Your task to perform on an android device: Go to battery settings Image 0: 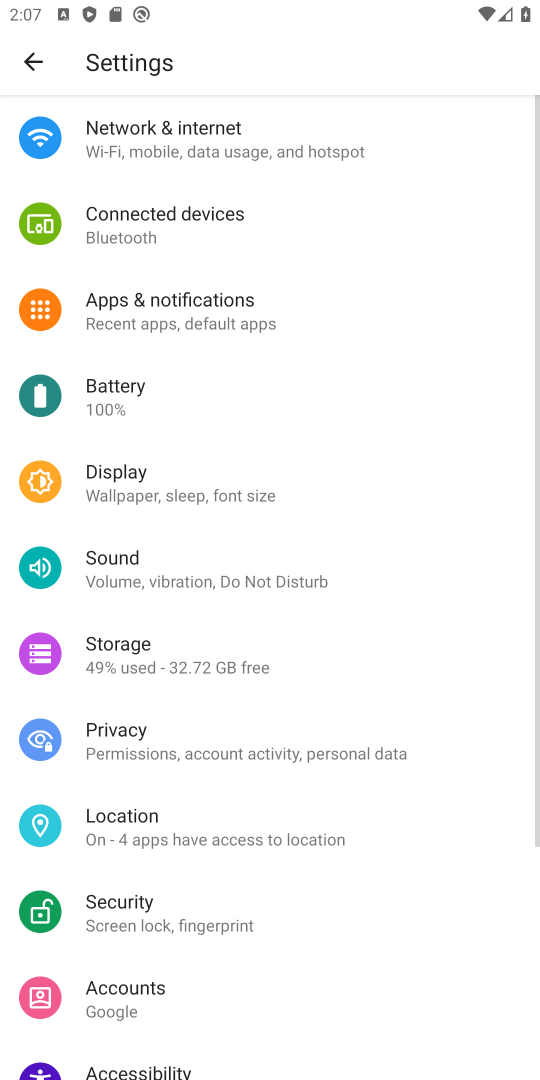
Step 0: press home button
Your task to perform on an android device: Go to battery settings Image 1: 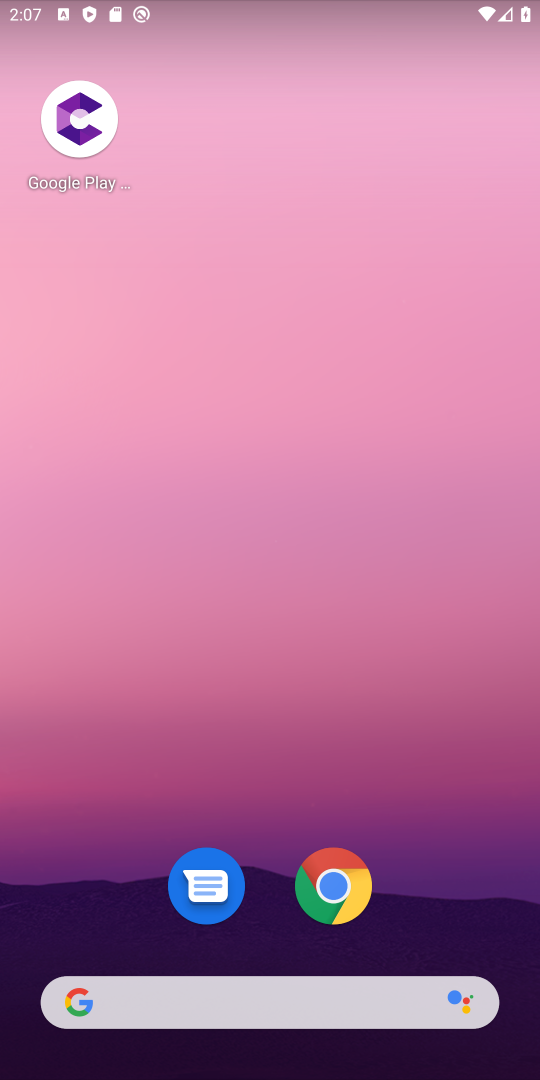
Step 1: drag from (393, 792) to (447, 31)
Your task to perform on an android device: Go to battery settings Image 2: 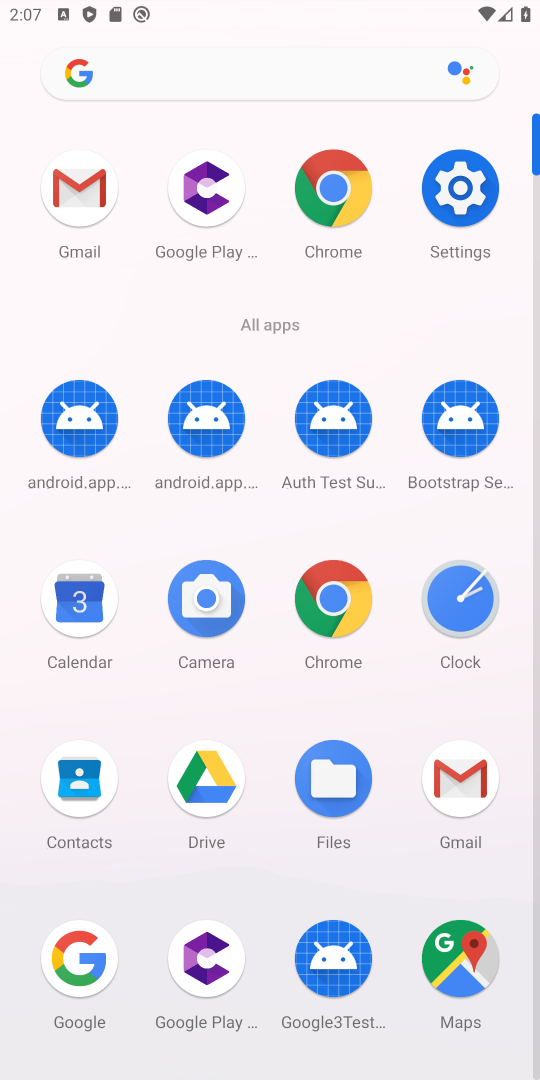
Step 2: click (459, 166)
Your task to perform on an android device: Go to battery settings Image 3: 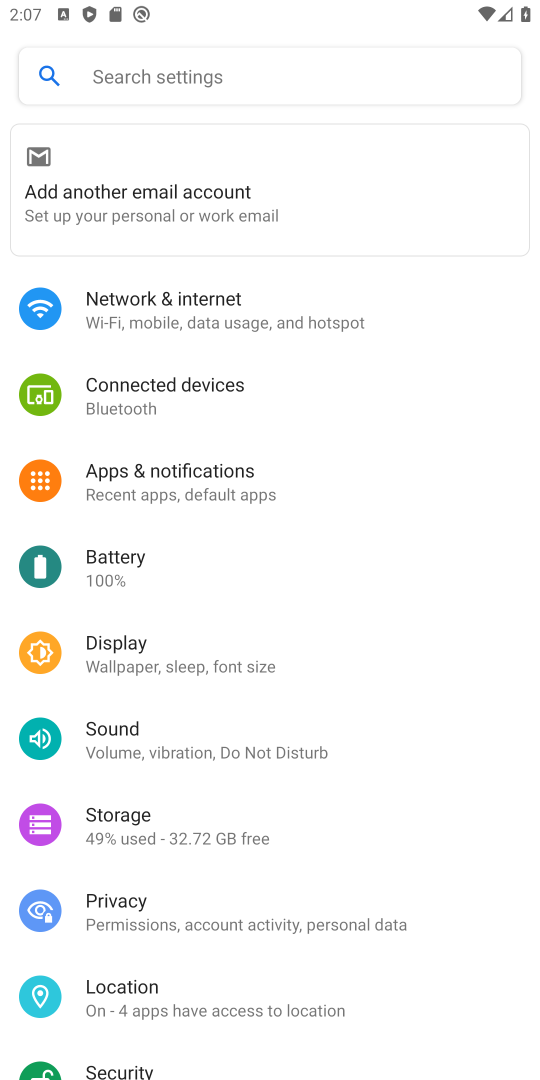
Step 3: click (164, 570)
Your task to perform on an android device: Go to battery settings Image 4: 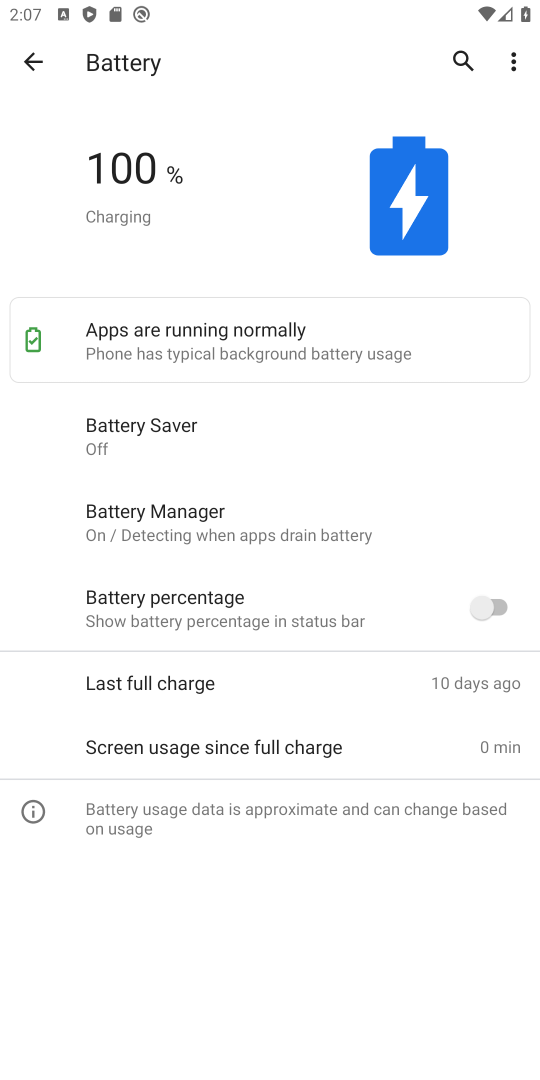
Step 4: task complete